Your task to perform on an android device: Is it going to rain today? Image 0: 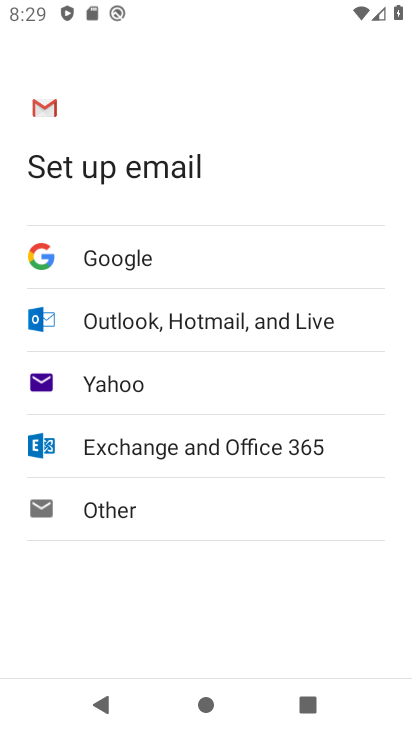
Step 0: press home button
Your task to perform on an android device: Is it going to rain today? Image 1: 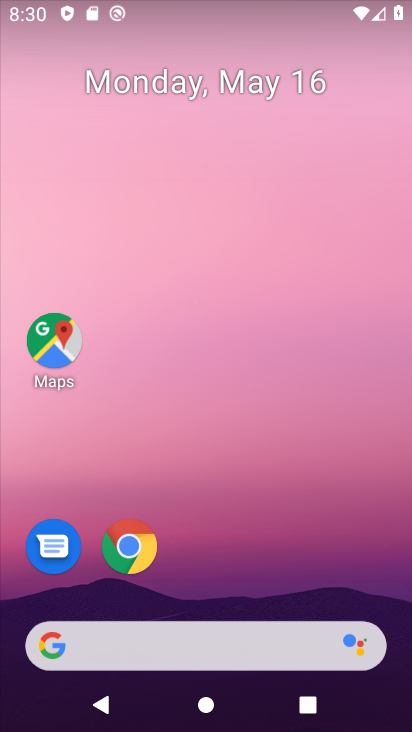
Step 1: drag from (266, 665) to (247, 272)
Your task to perform on an android device: Is it going to rain today? Image 2: 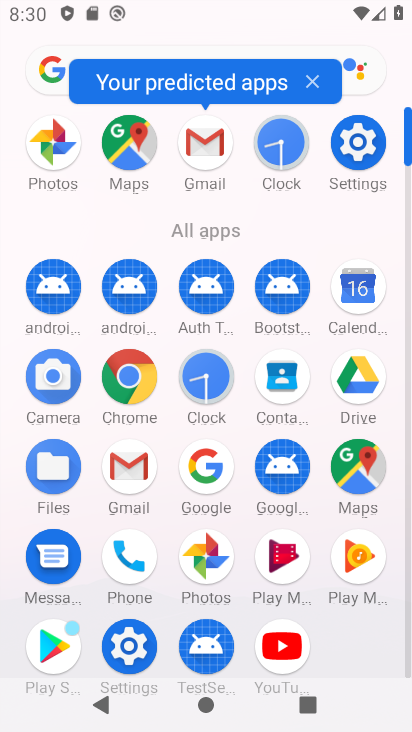
Step 2: click (317, 94)
Your task to perform on an android device: Is it going to rain today? Image 3: 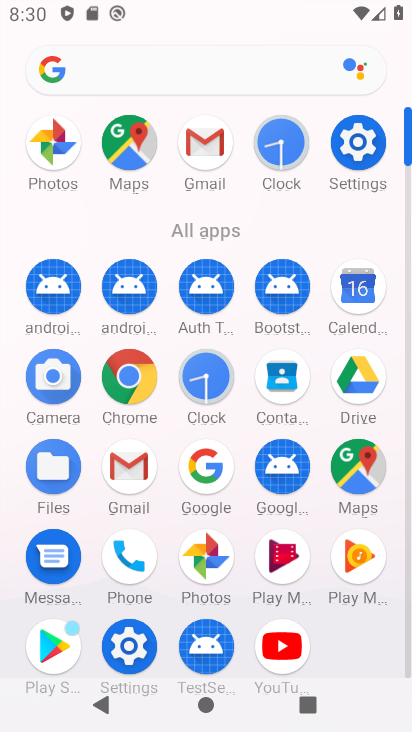
Step 3: click (158, 80)
Your task to perform on an android device: Is it going to rain today? Image 4: 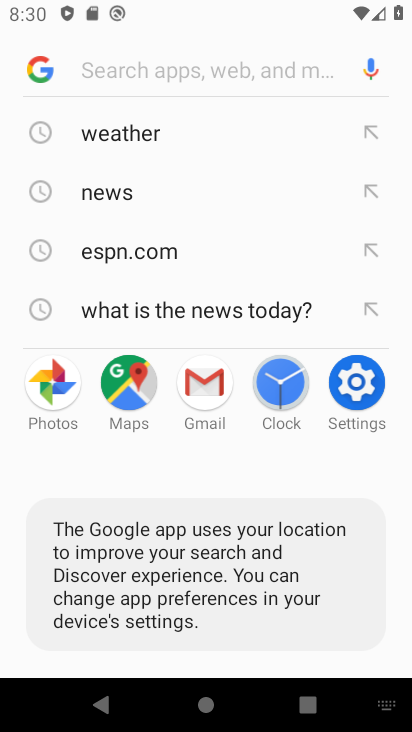
Step 4: click (387, 701)
Your task to perform on an android device: Is it going to rain today? Image 5: 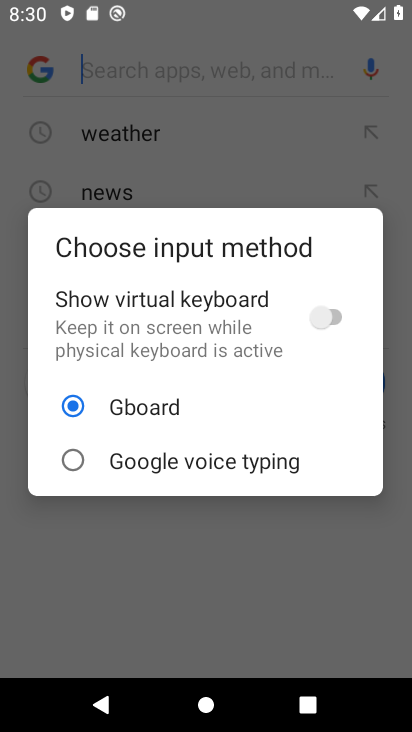
Step 5: click (333, 314)
Your task to perform on an android device: Is it going to rain today? Image 6: 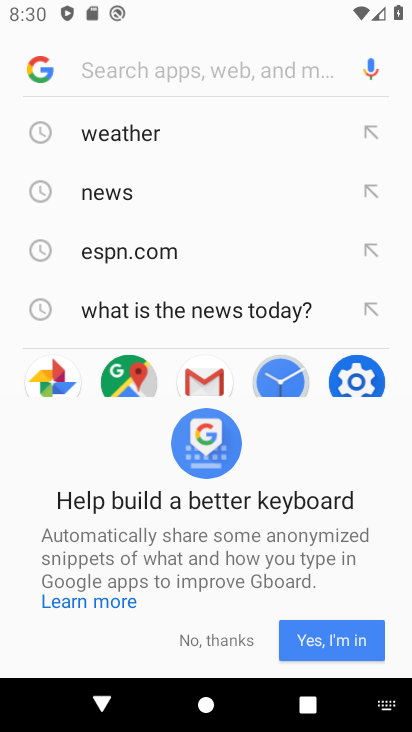
Step 6: click (205, 640)
Your task to perform on an android device: Is it going to rain today? Image 7: 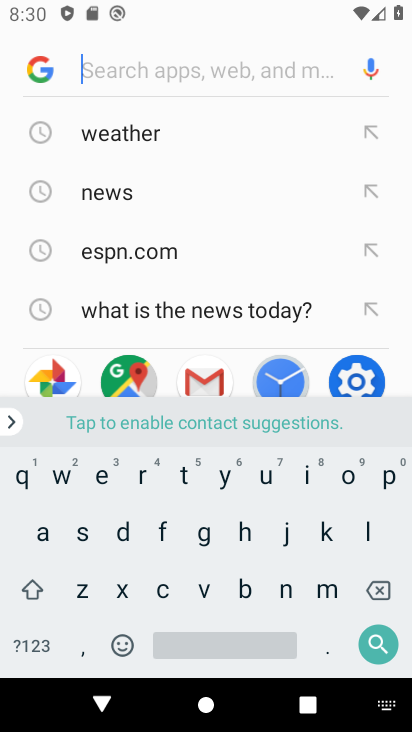
Step 7: click (150, 147)
Your task to perform on an android device: Is it going to rain today? Image 8: 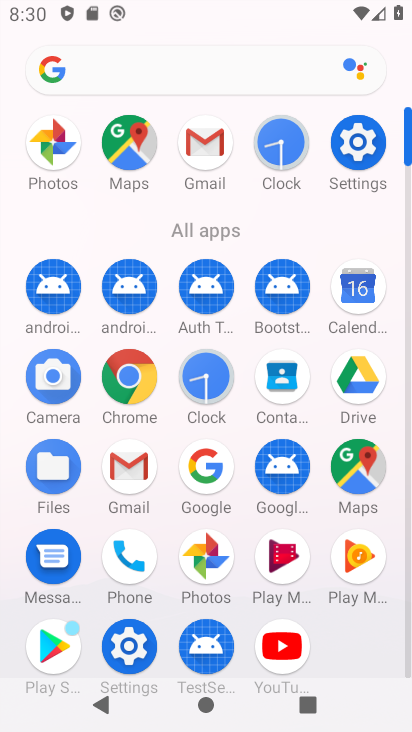
Step 8: click (219, 72)
Your task to perform on an android device: Is it going to rain today? Image 9: 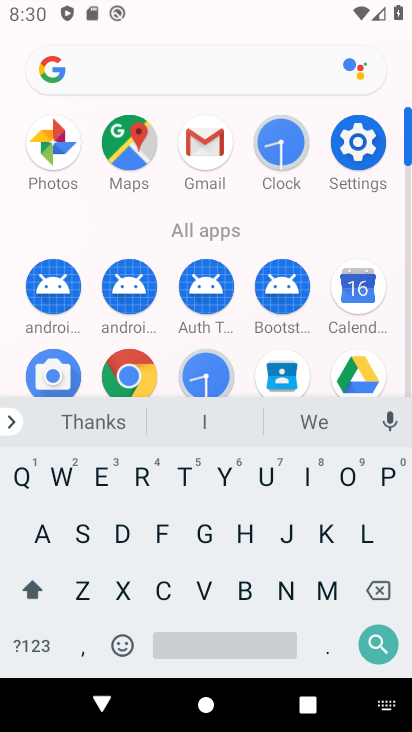
Step 9: click (59, 474)
Your task to perform on an android device: Is it going to rain today? Image 10: 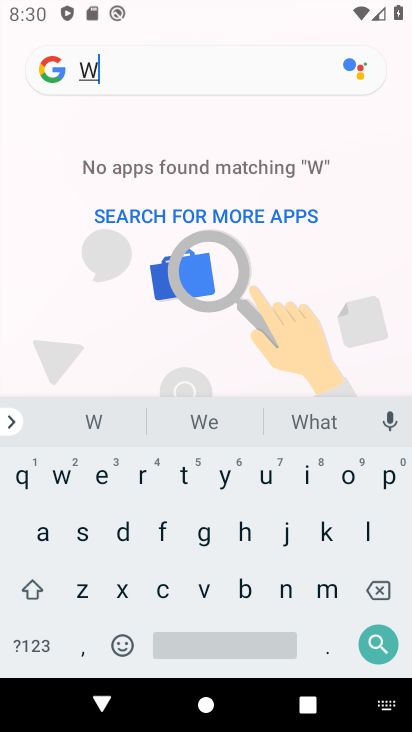
Step 10: click (198, 220)
Your task to perform on an android device: Is it going to rain today? Image 11: 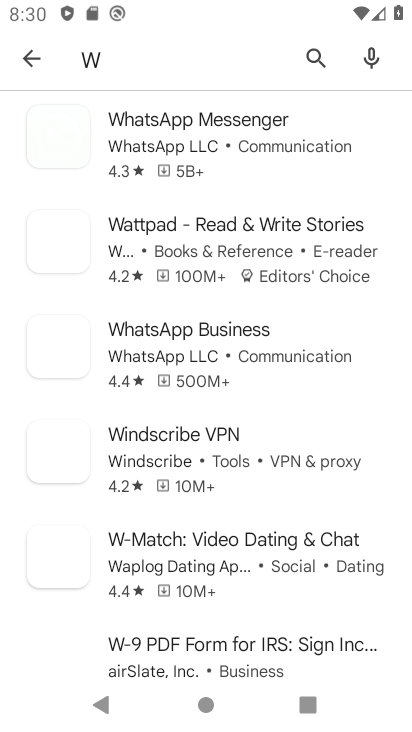
Step 11: press back button
Your task to perform on an android device: Is it going to rain today? Image 12: 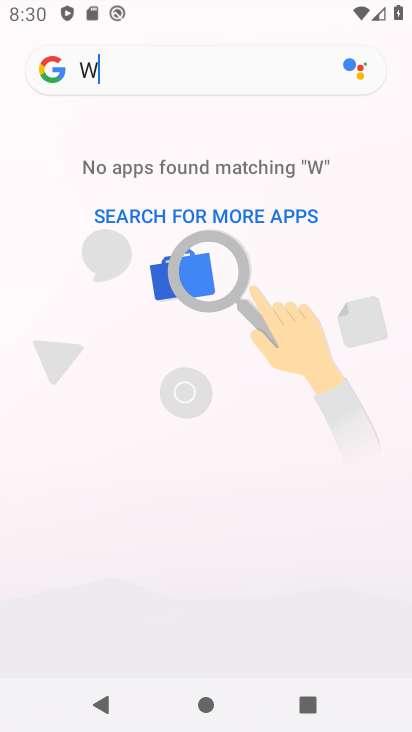
Step 12: click (159, 71)
Your task to perform on an android device: Is it going to rain today? Image 13: 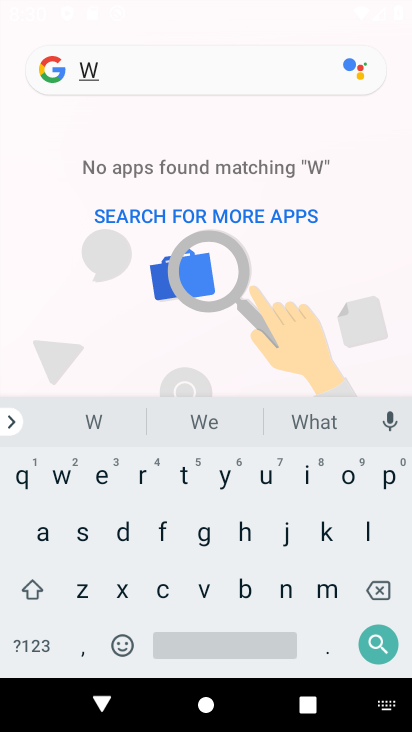
Step 13: click (230, 534)
Your task to perform on an android device: Is it going to rain today? Image 14: 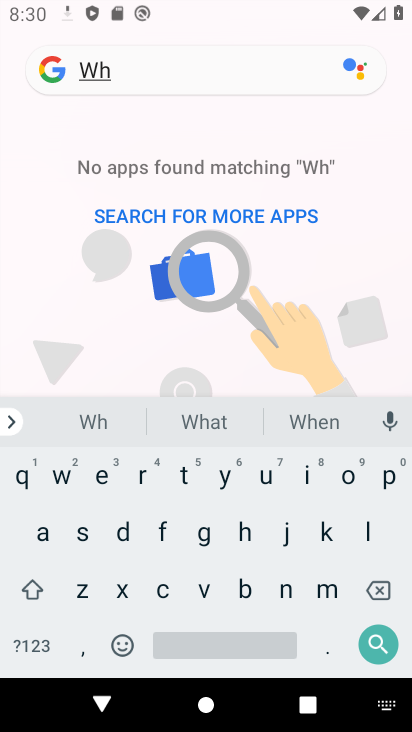
Step 14: click (95, 473)
Your task to perform on an android device: Is it going to rain today? Image 15: 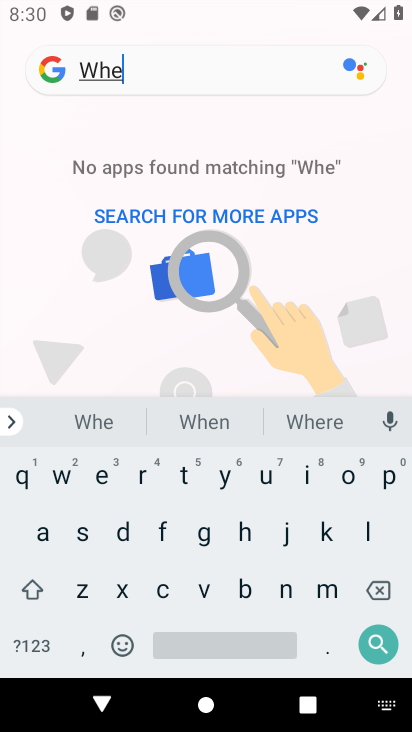
Step 15: click (39, 535)
Your task to perform on an android device: Is it going to rain today? Image 16: 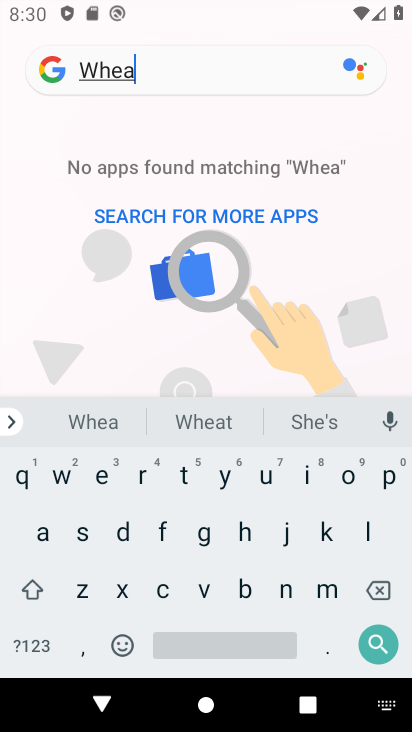
Step 16: click (185, 472)
Your task to perform on an android device: Is it going to rain today? Image 17: 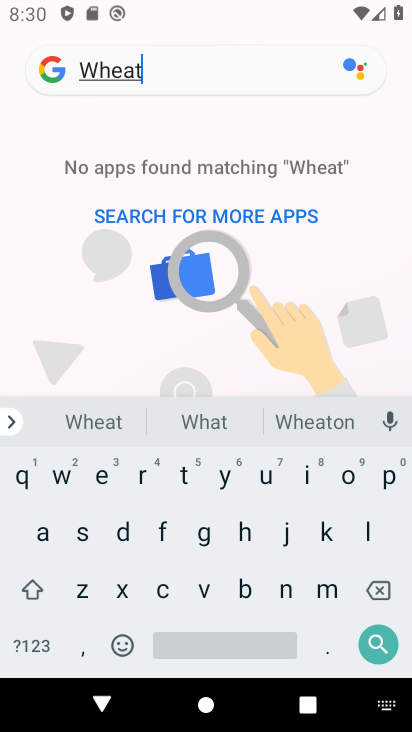
Step 17: click (233, 530)
Your task to perform on an android device: Is it going to rain today? Image 18: 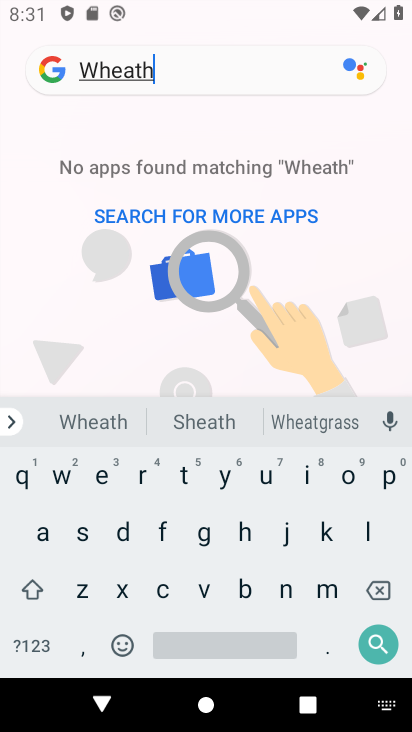
Step 18: click (95, 475)
Your task to perform on an android device: Is it going to rain today? Image 19: 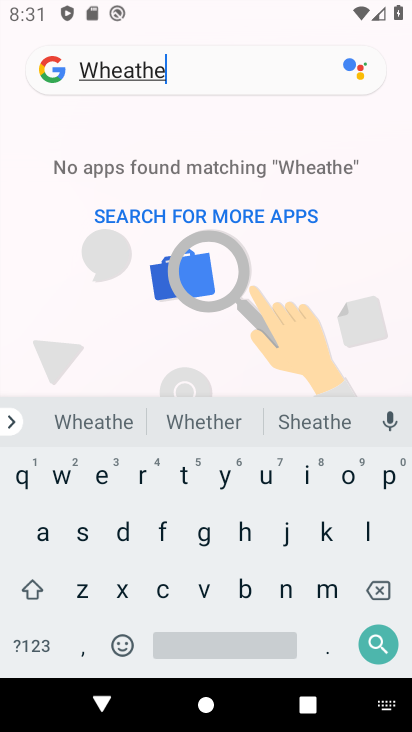
Step 19: click (201, 422)
Your task to perform on an android device: Is it going to rain today? Image 20: 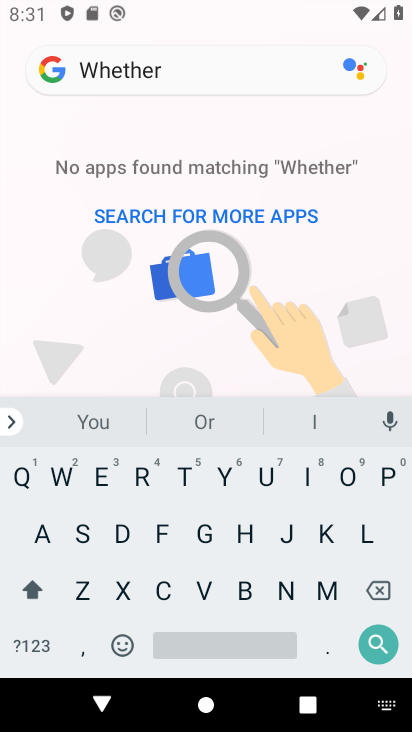
Step 20: task complete